Your task to perform on an android device: Open the stopwatch Image 0: 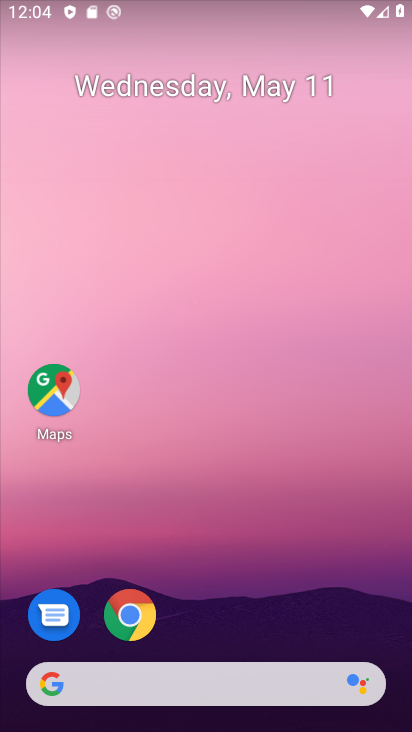
Step 0: click (262, 17)
Your task to perform on an android device: Open the stopwatch Image 1: 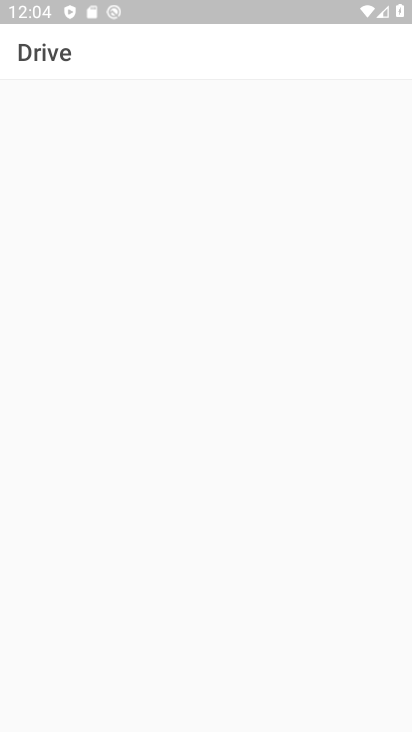
Step 1: press home button
Your task to perform on an android device: Open the stopwatch Image 2: 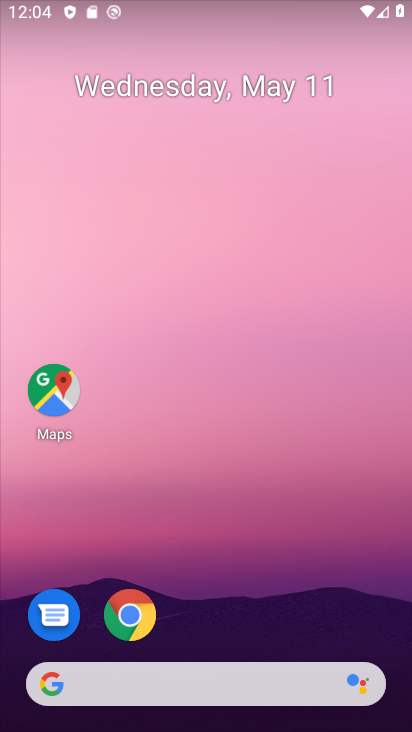
Step 2: drag from (209, 643) to (206, 162)
Your task to perform on an android device: Open the stopwatch Image 3: 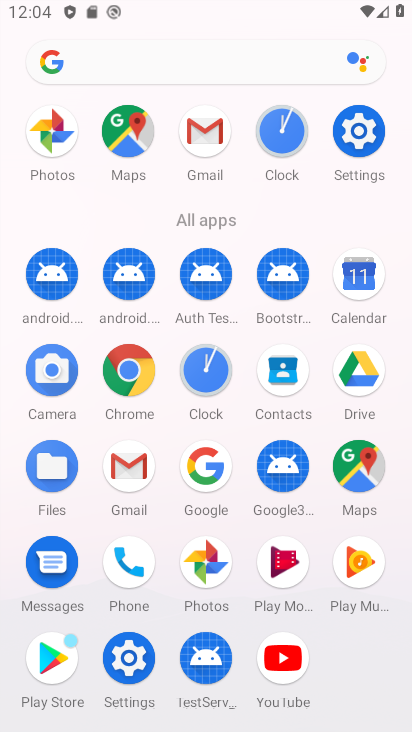
Step 3: click (286, 143)
Your task to perform on an android device: Open the stopwatch Image 4: 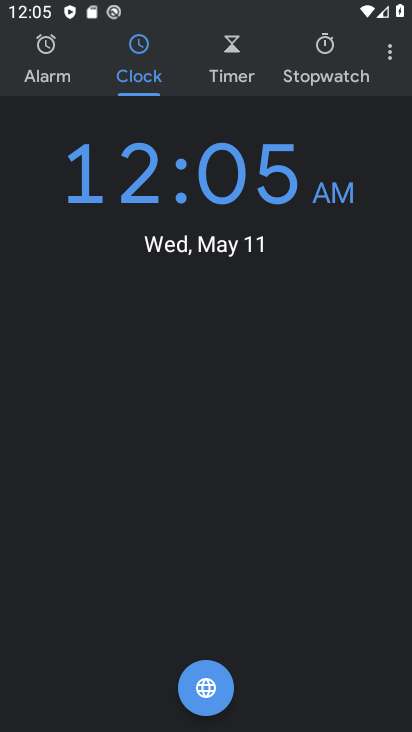
Step 4: click (334, 83)
Your task to perform on an android device: Open the stopwatch Image 5: 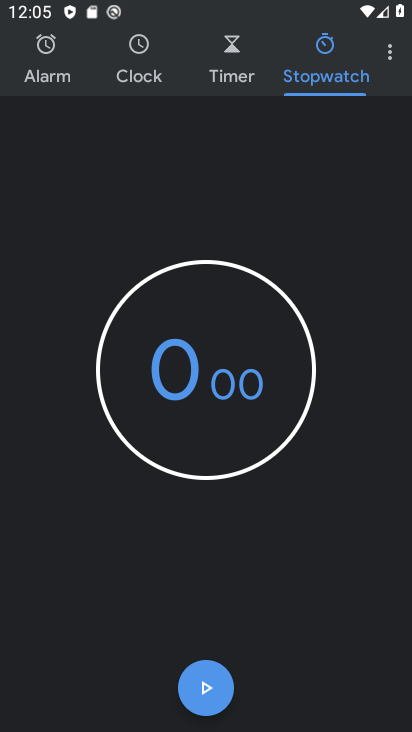
Step 5: task complete